Your task to perform on an android device: Open the map Image 0: 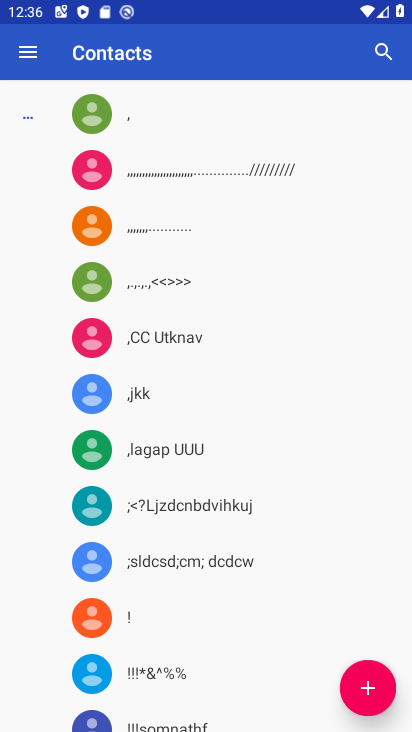
Step 0: press home button
Your task to perform on an android device: Open the map Image 1: 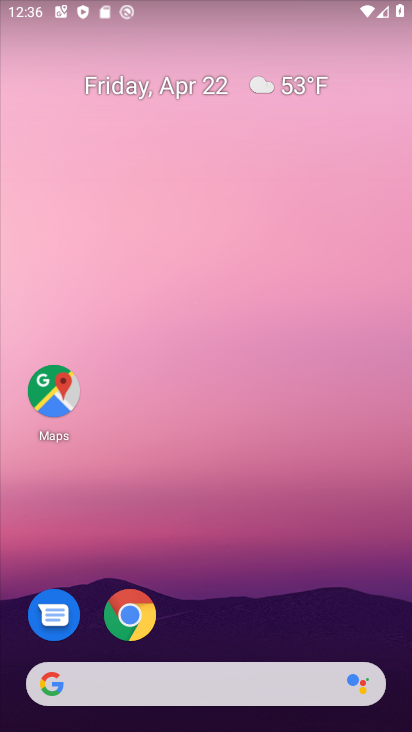
Step 1: click (50, 390)
Your task to perform on an android device: Open the map Image 2: 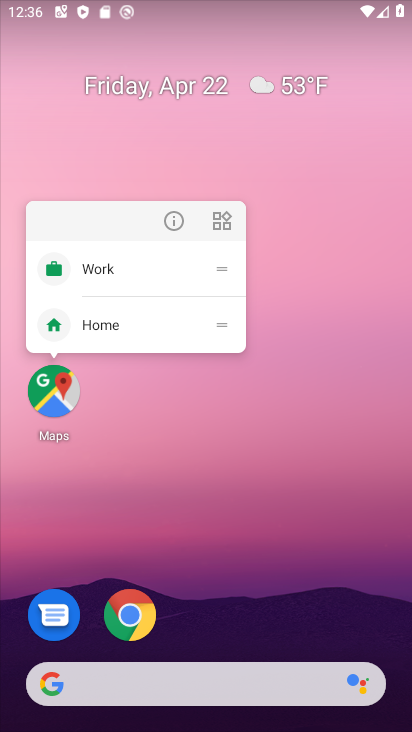
Step 2: click (60, 399)
Your task to perform on an android device: Open the map Image 3: 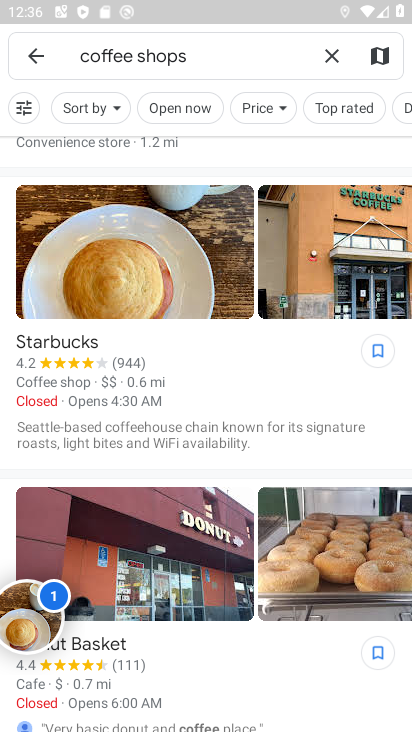
Step 3: task complete